Your task to perform on an android device: add a label to a message in the gmail app Image 0: 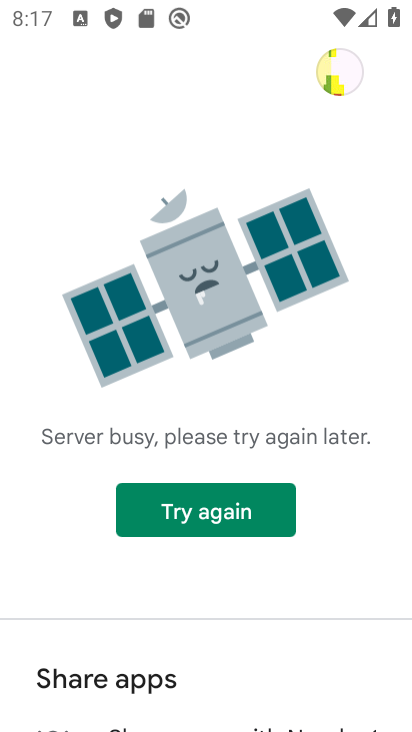
Step 0: press home button
Your task to perform on an android device: add a label to a message in the gmail app Image 1: 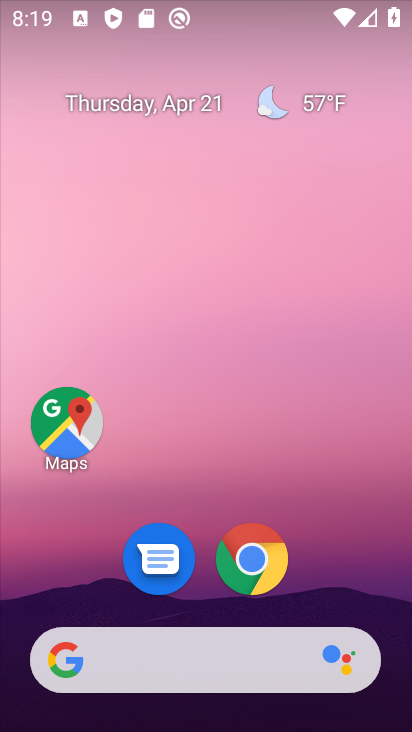
Step 1: drag from (194, 706) to (169, 0)
Your task to perform on an android device: add a label to a message in the gmail app Image 2: 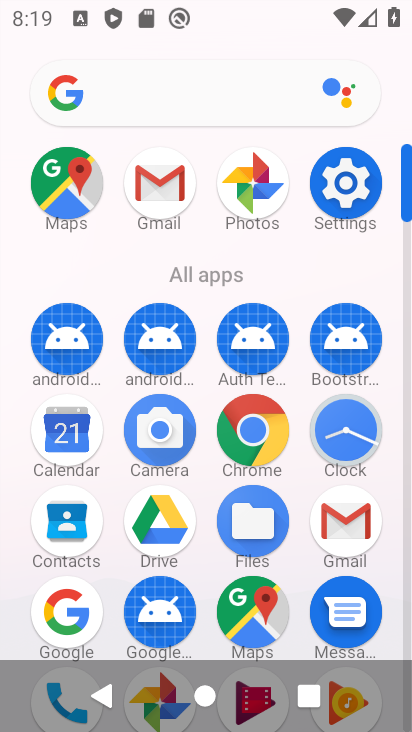
Step 2: click (156, 198)
Your task to perform on an android device: add a label to a message in the gmail app Image 3: 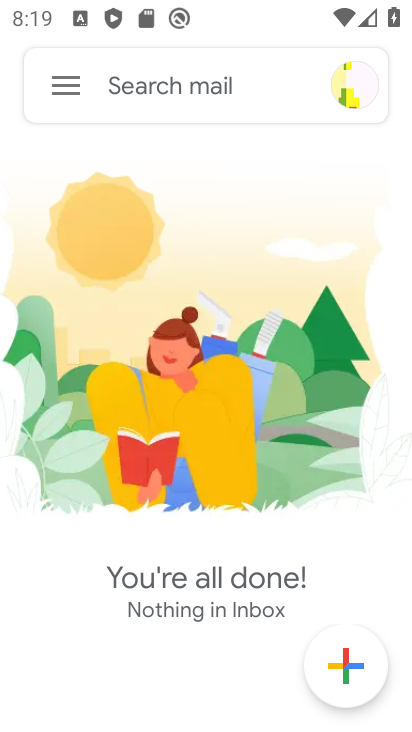
Step 3: task complete